Your task to perform on an android device: Open Youtube and go to the subscriptions tab Image 0: 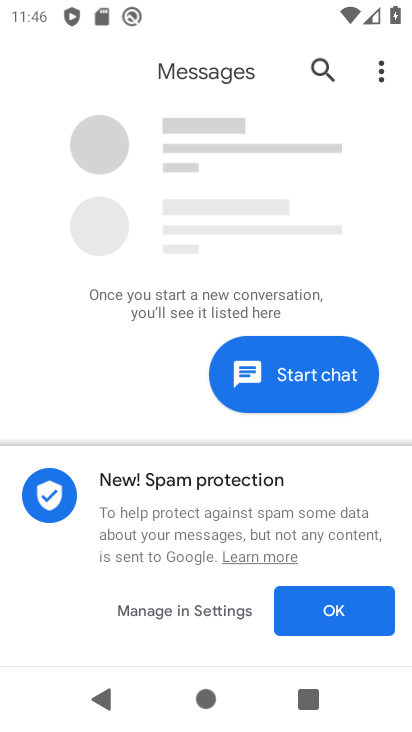
Step 0: press home button
Your task to perform on an android device: Open Youtube and go to the subscriptions tab Image 1: 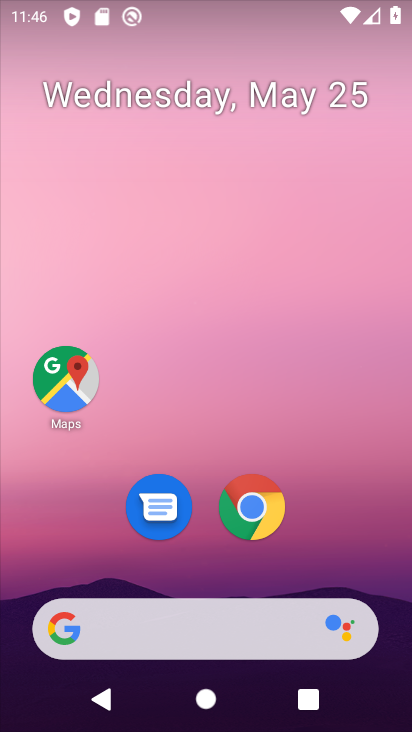
Step 1: drag from (206, 544) to (214, 239)
Your task to perform on an android device: Open Youtube and go to the subscriptions tab Image 2: 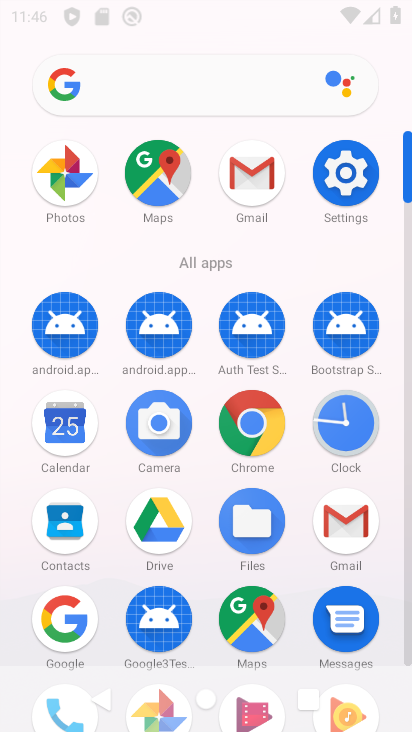
Step 2: drag from (206, 581) to (218, 295)
Your task to perform on an android device: Open Youtube and go to the subscriptions tab Image 3: 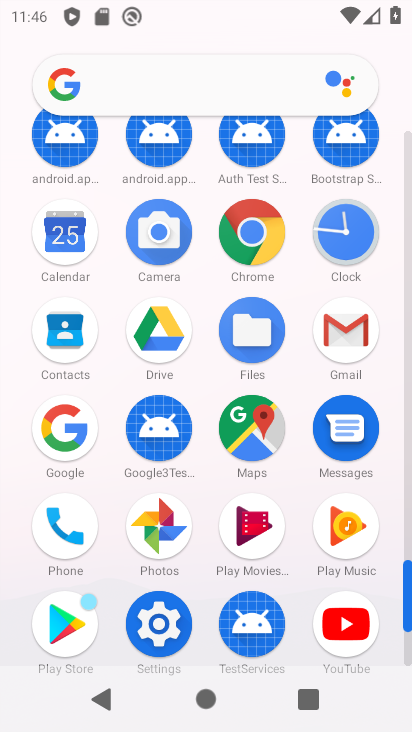
Step 3: click (343, 627)
Your task to perform on an android device: Open Youtube and go to the subscriptions tab Image 4: 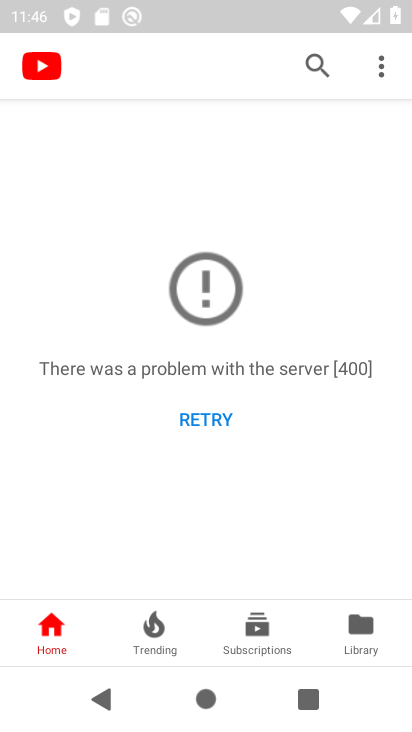
Step 4: click (264, 633)
Your task to perform on an android device: Open Youtube and go to the subscriptions tab Image 5: 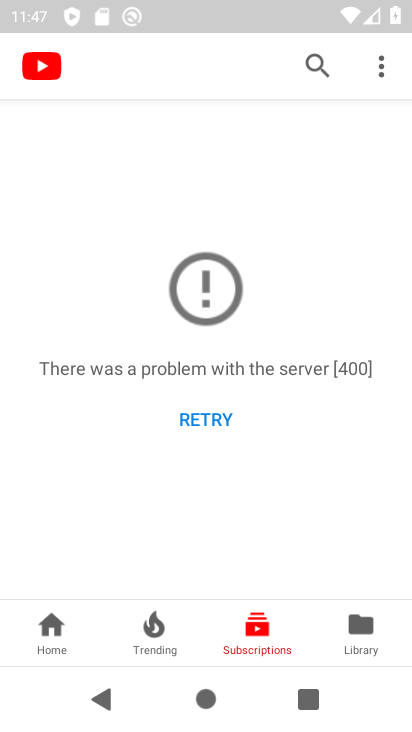
Step 5: task complete